Your task to perform on an android device: Do I have any events today? Image 0: 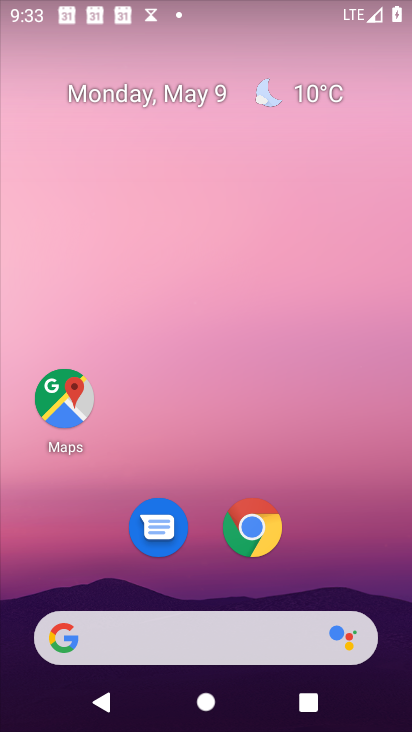
Step 0: drag from (220, 502) to (320, 53)
Your task to perform on an android device: Do I have any events today? Image 1: 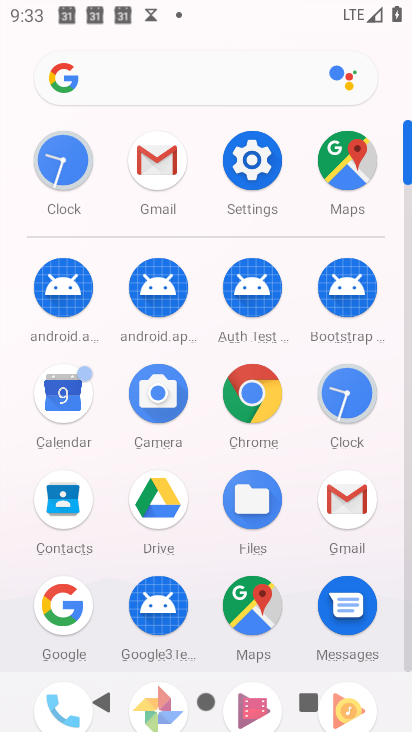
Step 1: click (66, 405)
Your task to perform on an android device: Do I have any events today? Image 2: 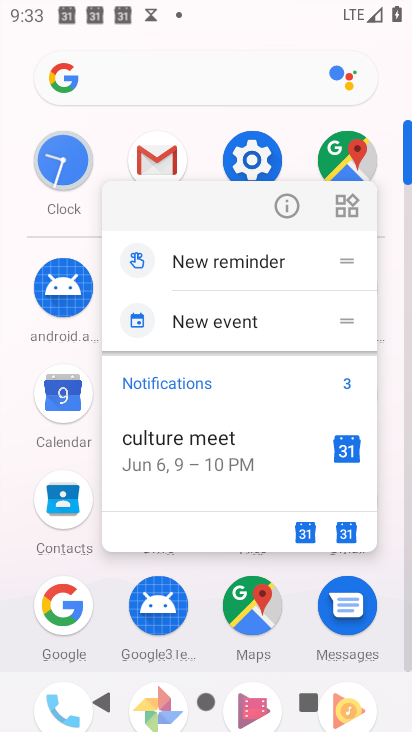
Step 2: click (67, 403)
Your task to perform on an android device: Do I have any events today? Image 3: 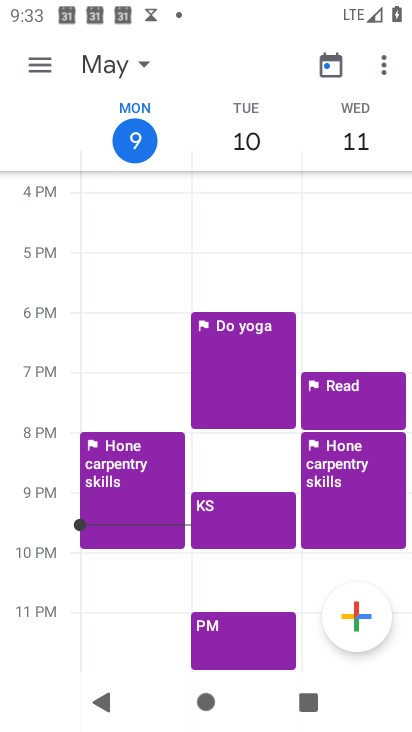
Step 3: click (47, 66)
Your task to perform on an android device: Do I have any events today? Image 4: 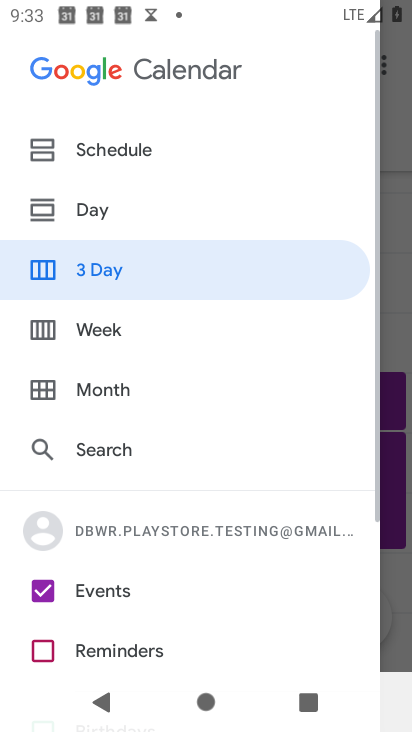
Step 4: click (103, 213)
Your task to perform on an android device: Do I have any events today? Image 5: 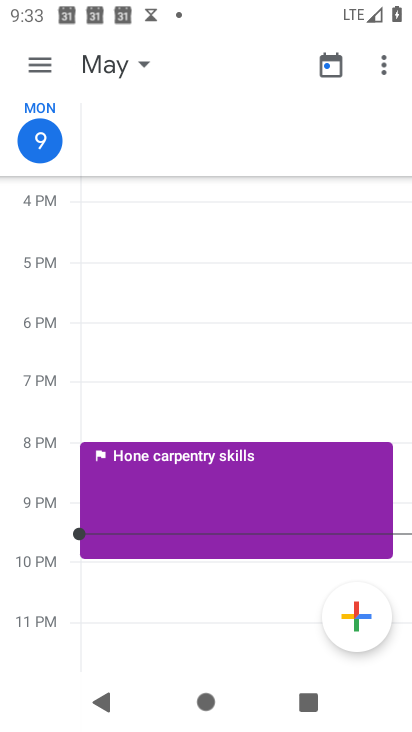
Step 5: task complete